Your task to perform on an android device: Empty the shopping cart on ebay.com. Search for "jbl flip 4" on ebay.com, select the first entry, and add it to the cart. Image 0: 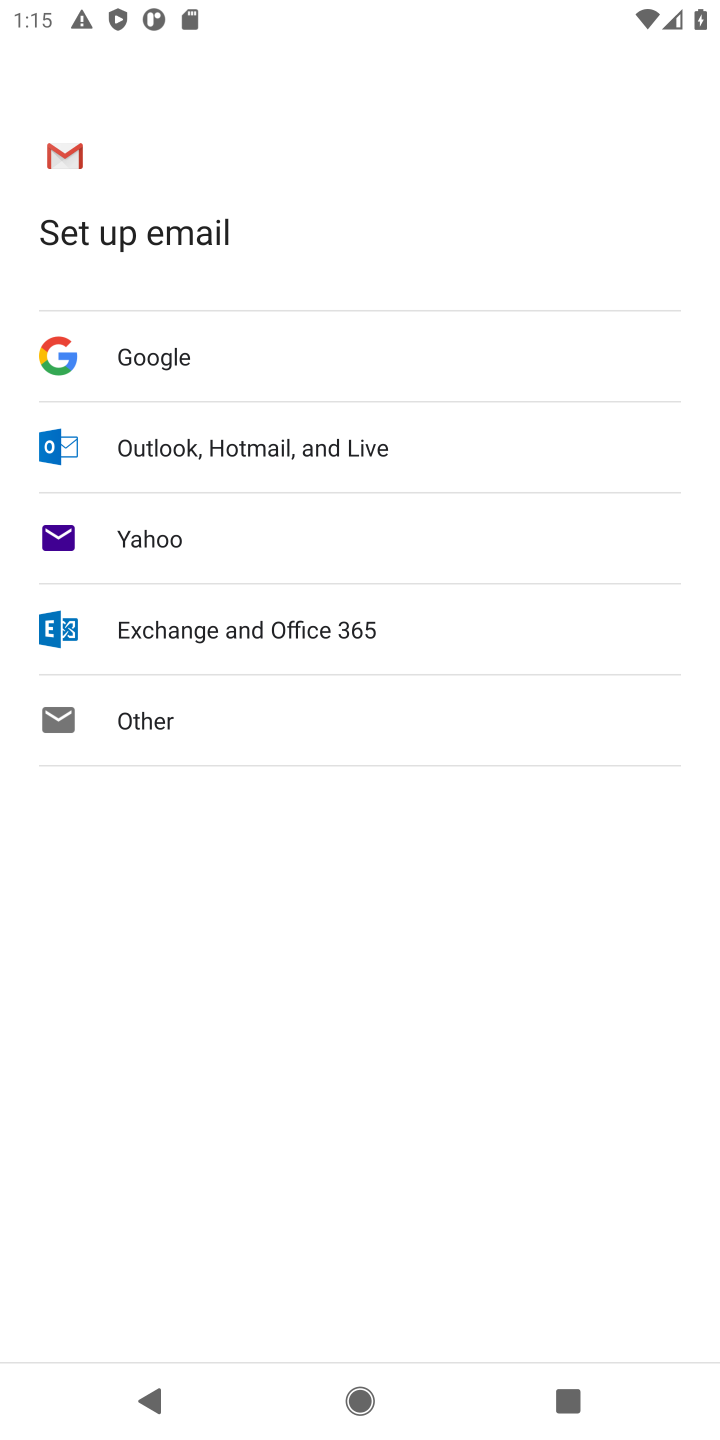
Step 0: press home button
Your task to perform on an android device: Empty the shopping cart on ebay.com. Search for "jbl flip 4" on ebay.com, select the first entry, and add it to the cart. Image 1: 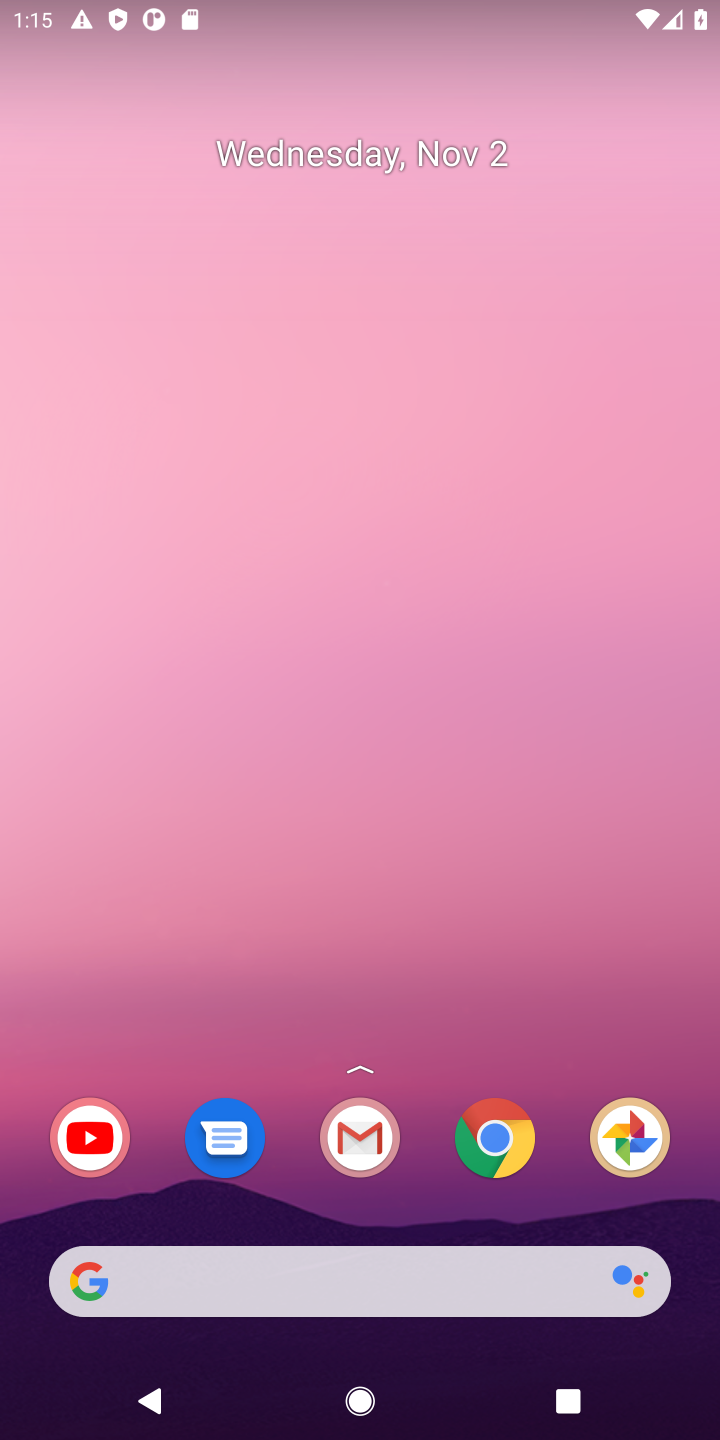
Step 1: click (154, 1275)
Your task to perform on an android device: Empty the shopping cart on ebay.com. Search for "jbl flip 4" on ebay.com, select the first entry, and add it to the cart. Image 2: 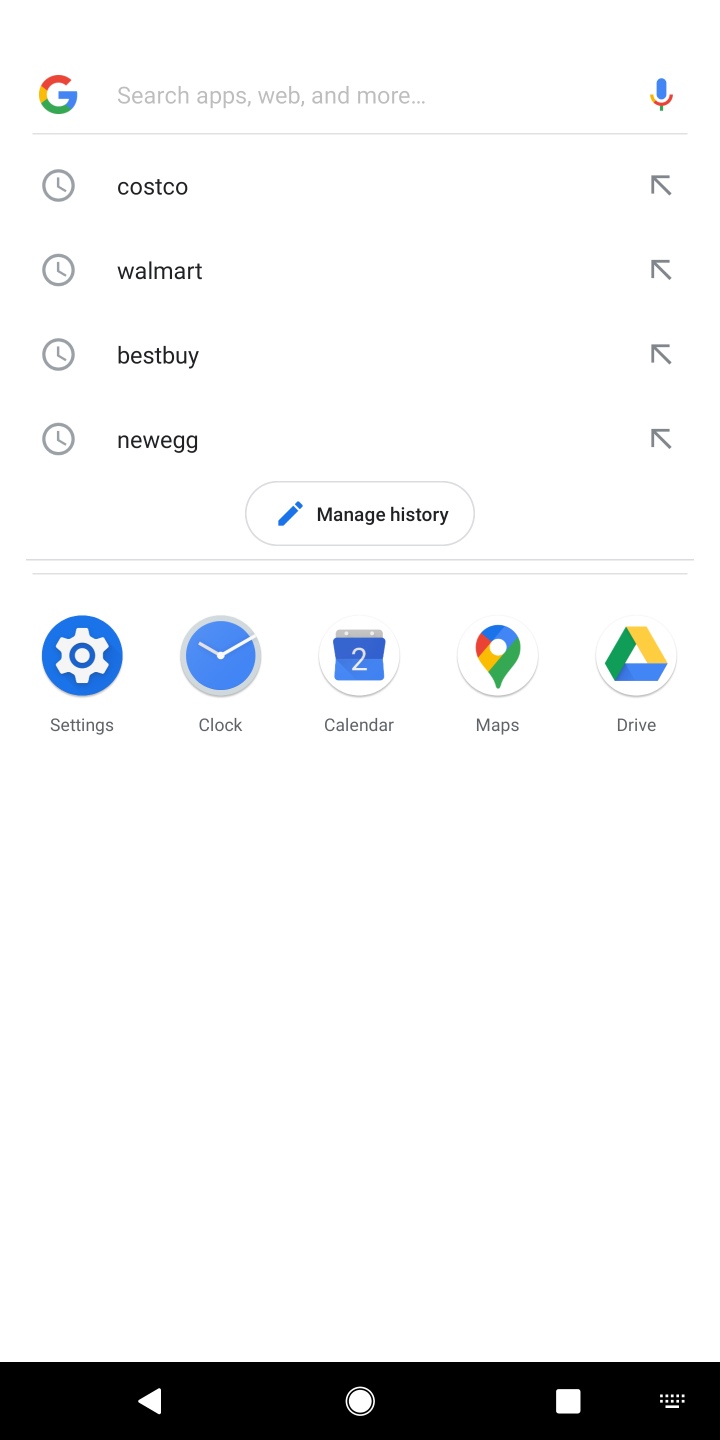
Step 2: type "ebay.com"
Your task to perform on an android device: Empty the shopping cart on ebay.com. Search for "jbl flip 4" on ebay.com, select the first entry, and add it to the cart. Image 3: 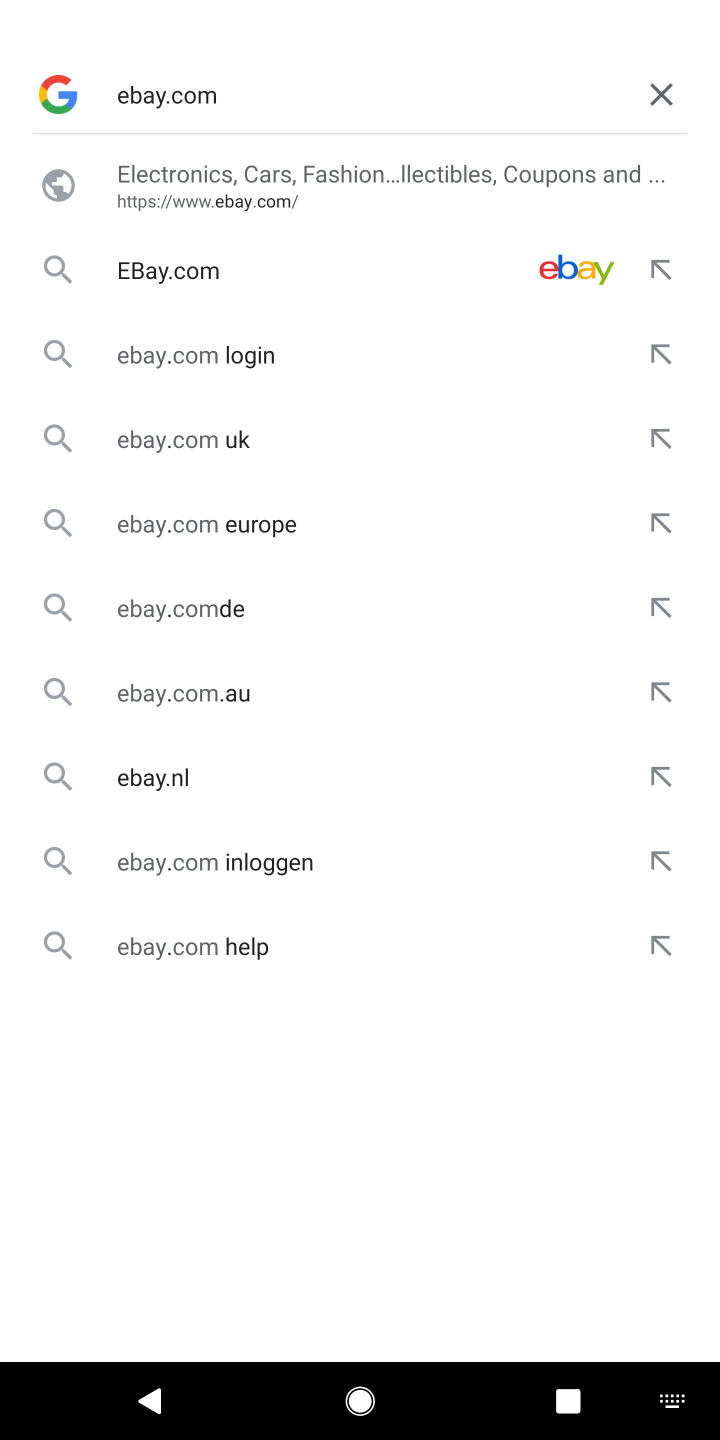
Step 3: press enter
Your task to perform on an android device: Empty the shopping cart on ebay.com. Search for "jbl flip 4" on ebay.com, select the first entry, and add it to the cart. Image 4: 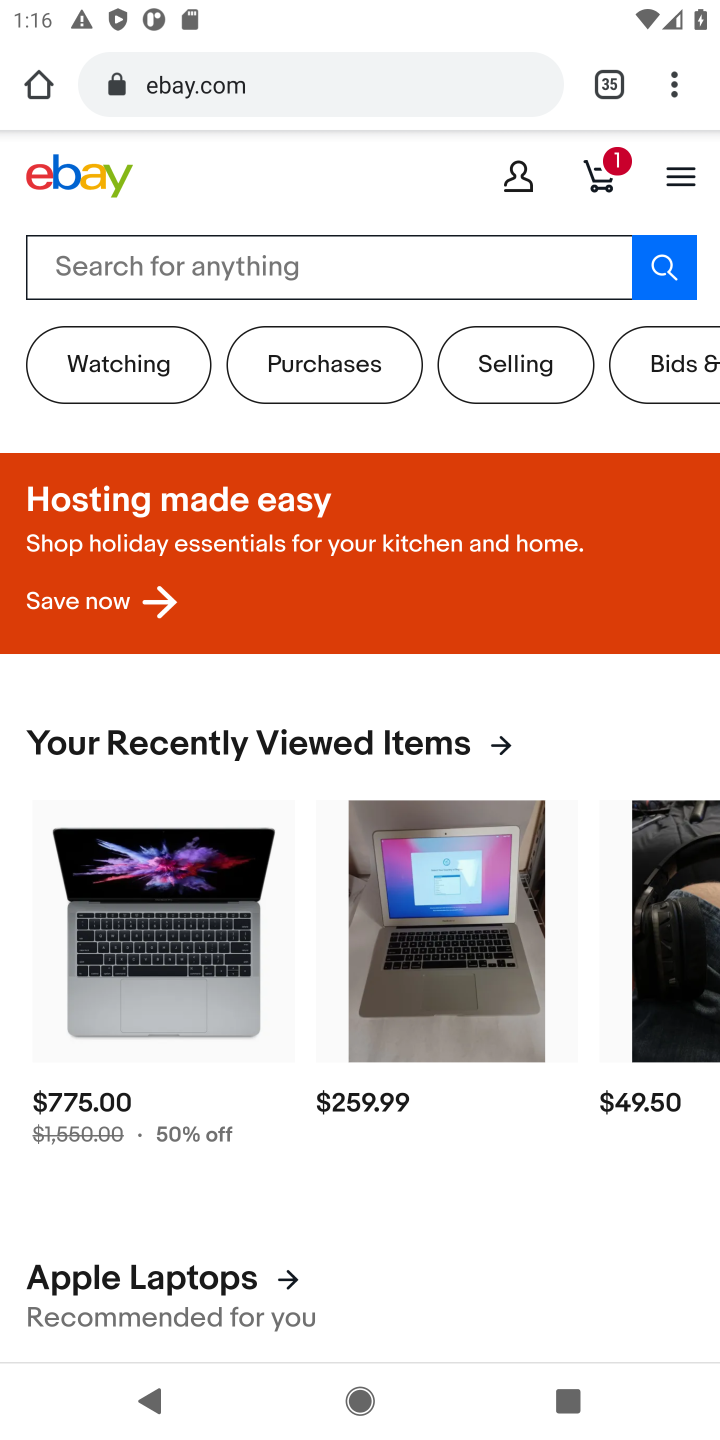
Step 4: click (607, 174)
Your task to perform on an android device: Empty the shopping cart on ebay.com. Search for "jbl flip 4" on ebay.com, select the first entry, and add it to the cart. Image 5: 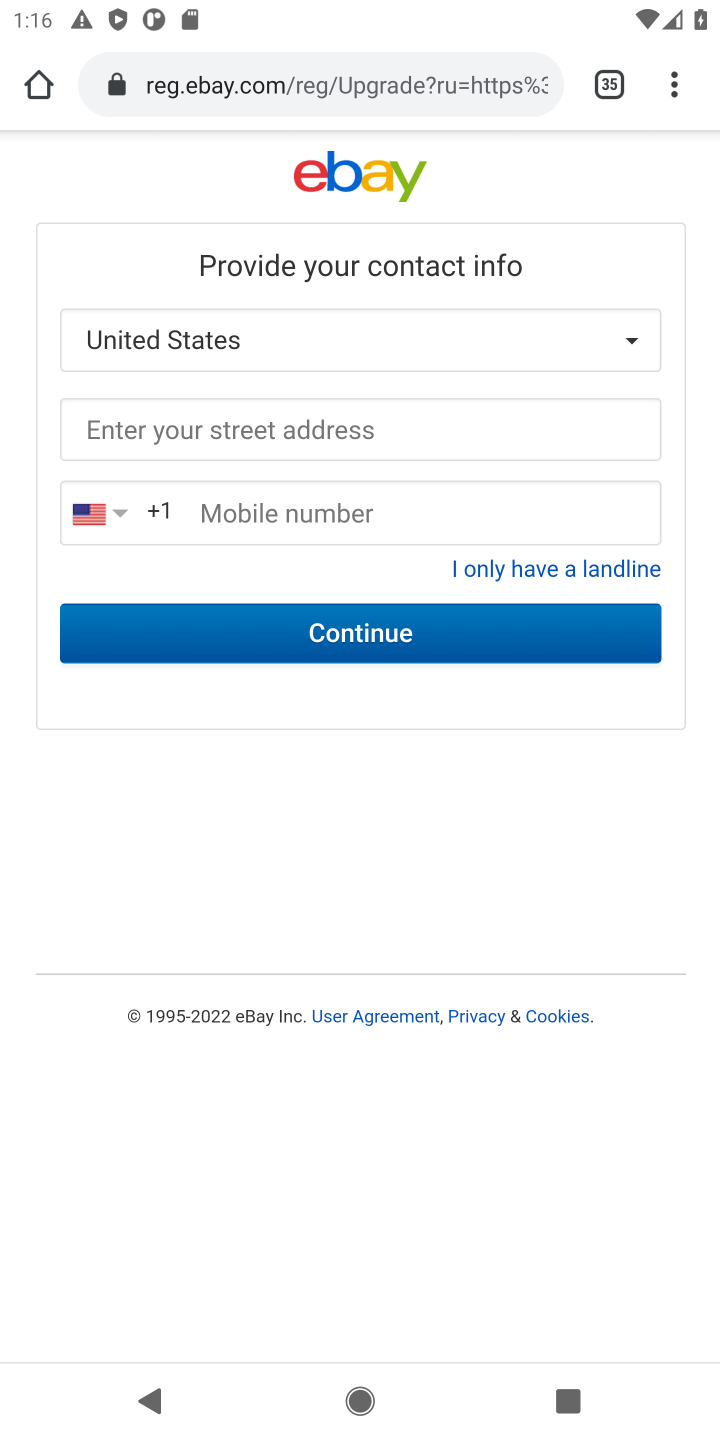
Step 5: press back button
Your task to perform on an android device: Empty the shopping cart on ebay.com. Search for "jbl flip 4" on ebay.com, select the first entry, and add it to the cart. Image 6: 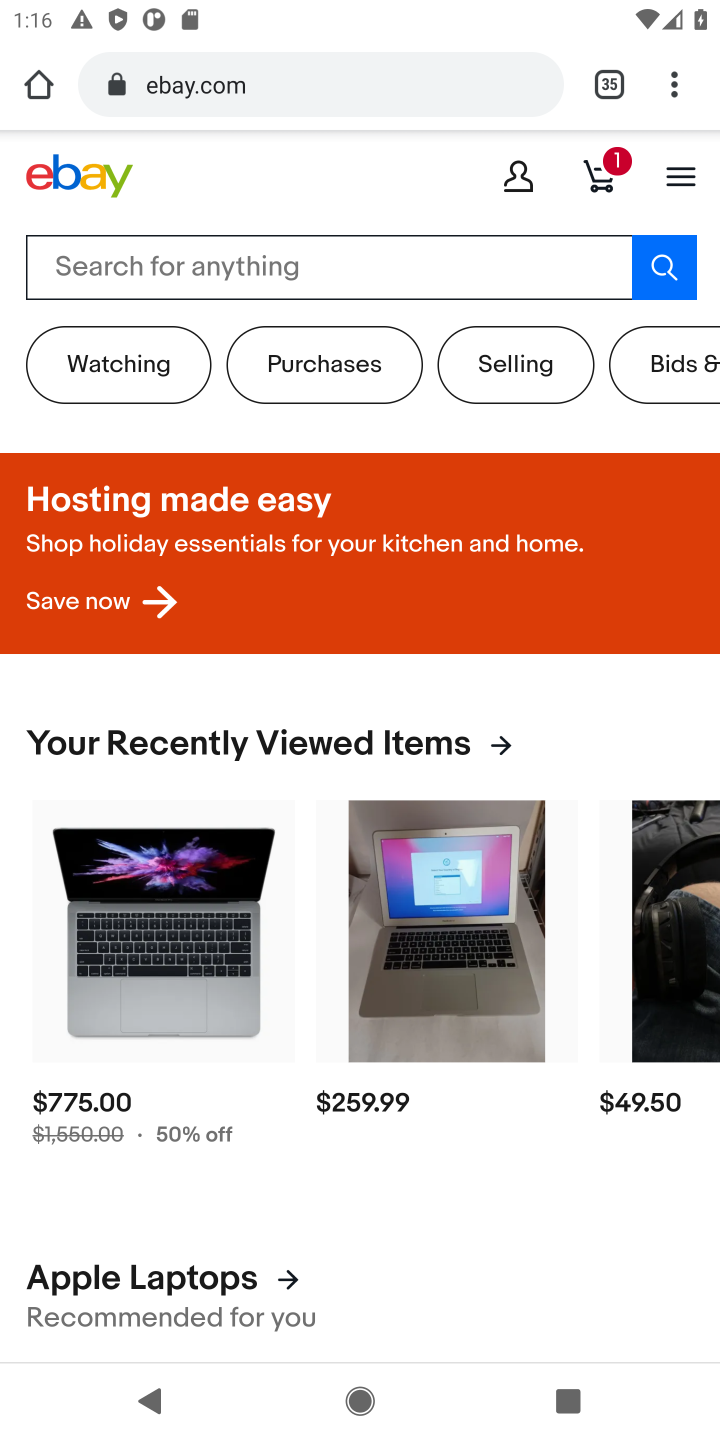
Step 6: click (274, 263)
Your task to perform on an android device: Empty the shopping cart on ebay.com. Search for "jbl flip 4" on ebay.com, select the first entry, and add it to the cart. Image 7: 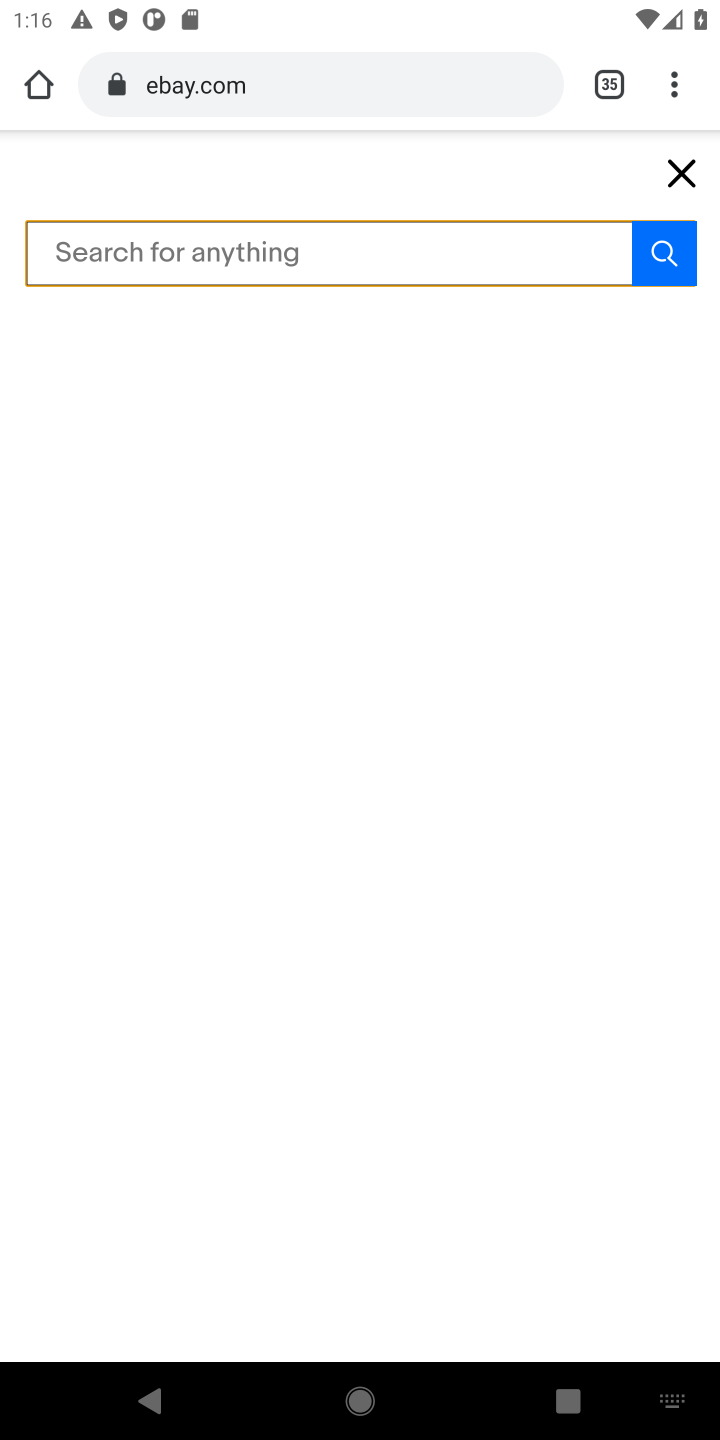
Step 7: press enter
Your task to perform on an android device: Empty the shopping cart on ebay.com. Search for "jbl flip 4" on ebay.com, select the first entry, and add it to the cart. Image 8: 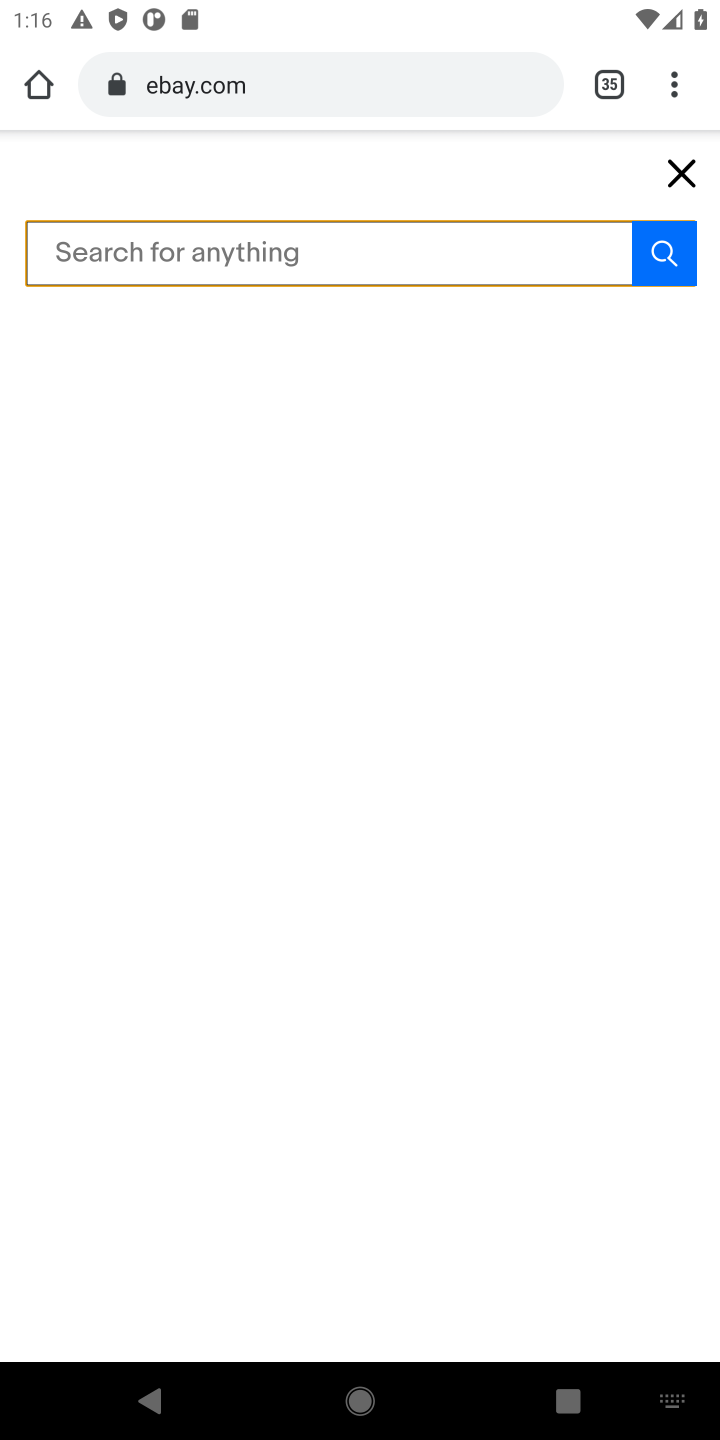
Step 8: type "jbl flip 4"
Your task to perform on an android device: Empty the shopping cart on ebay.com. Search for "jbl flip 4" on ebay.com, select the first entry, and add it to the cart. Image 9: 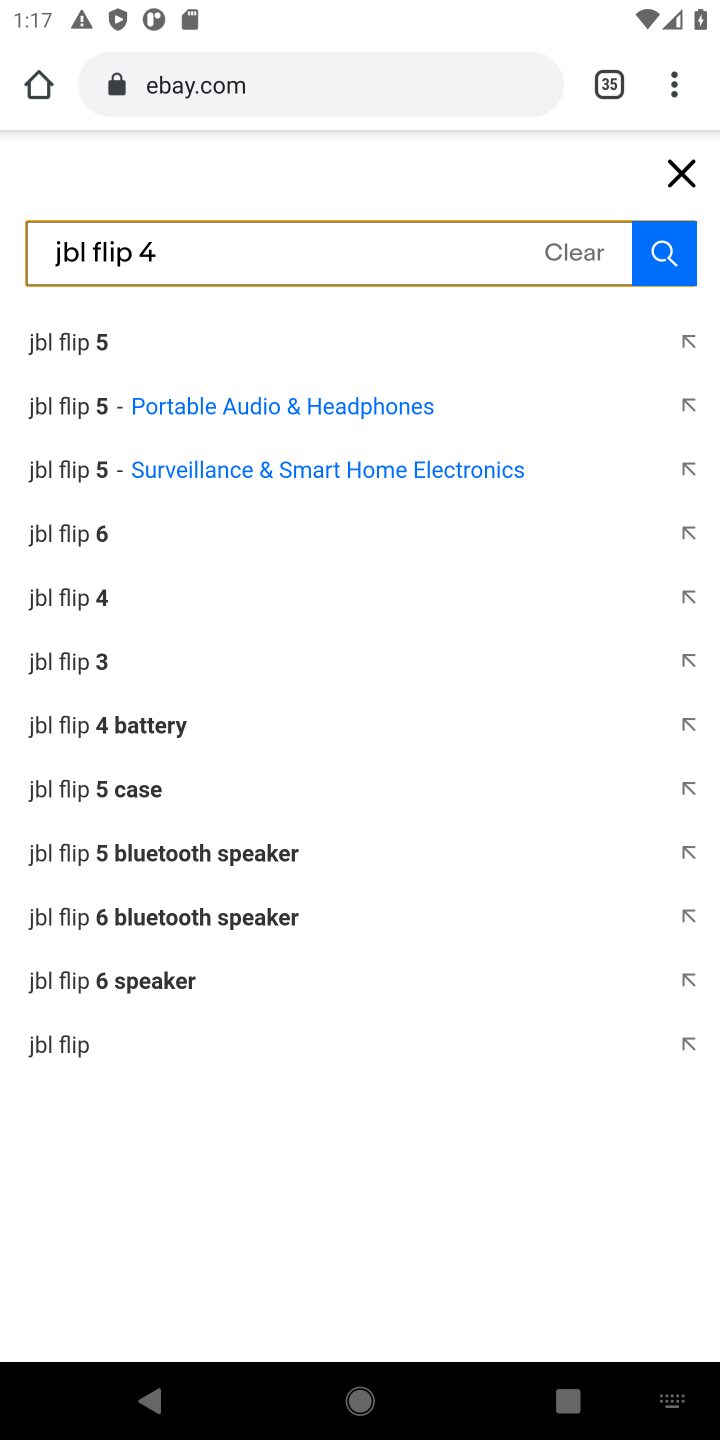
Step 9: click (665, 249)
Your task to perform on an android device: Empty the shopping cart on ebay.com. Search for "jbl flip 4" on ebay.com, select the first entry, and add it to the cart. Image 10: 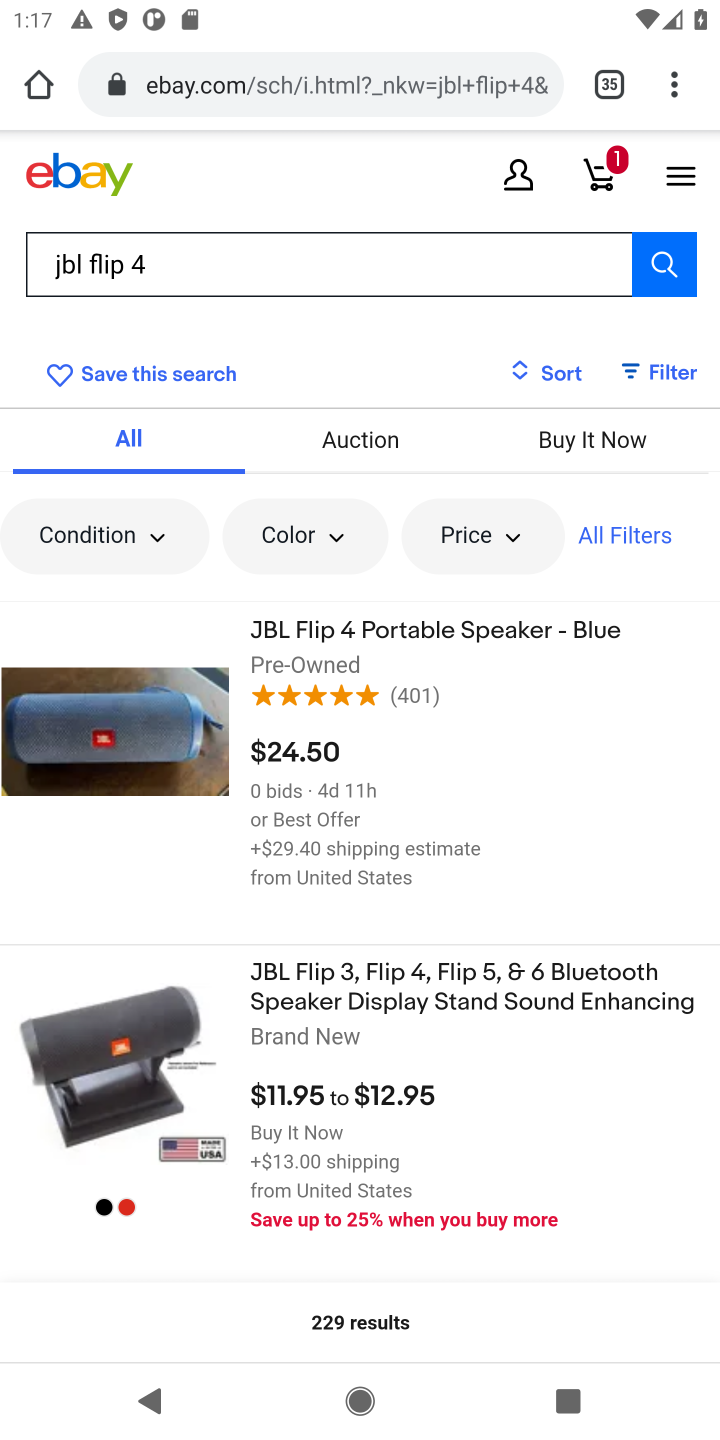
Step 10: click (340, 658)
Your task to perform on an android device: Empty the shopping cart on ebay.com. Search for "jbl flip 4" on ebay.com, select the first entry, and add it to the cart. Image 11: 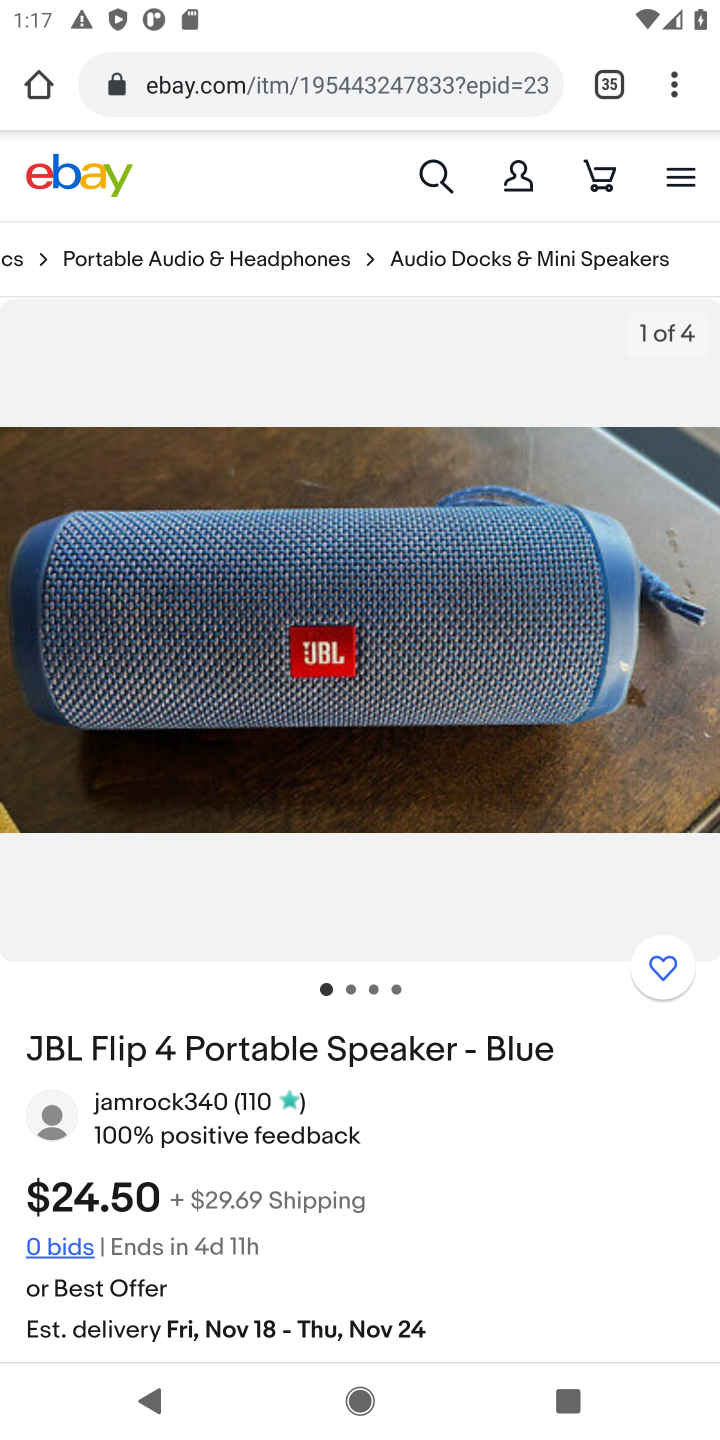
Step 11: drag from (399, 1164) to (453, 742)
Your task to perform on an android device: Empty the shopping cart on ebay.com. Search for "jbl flip 4" on ebay.com, select the first entry, and add it to the cart. Image 12: 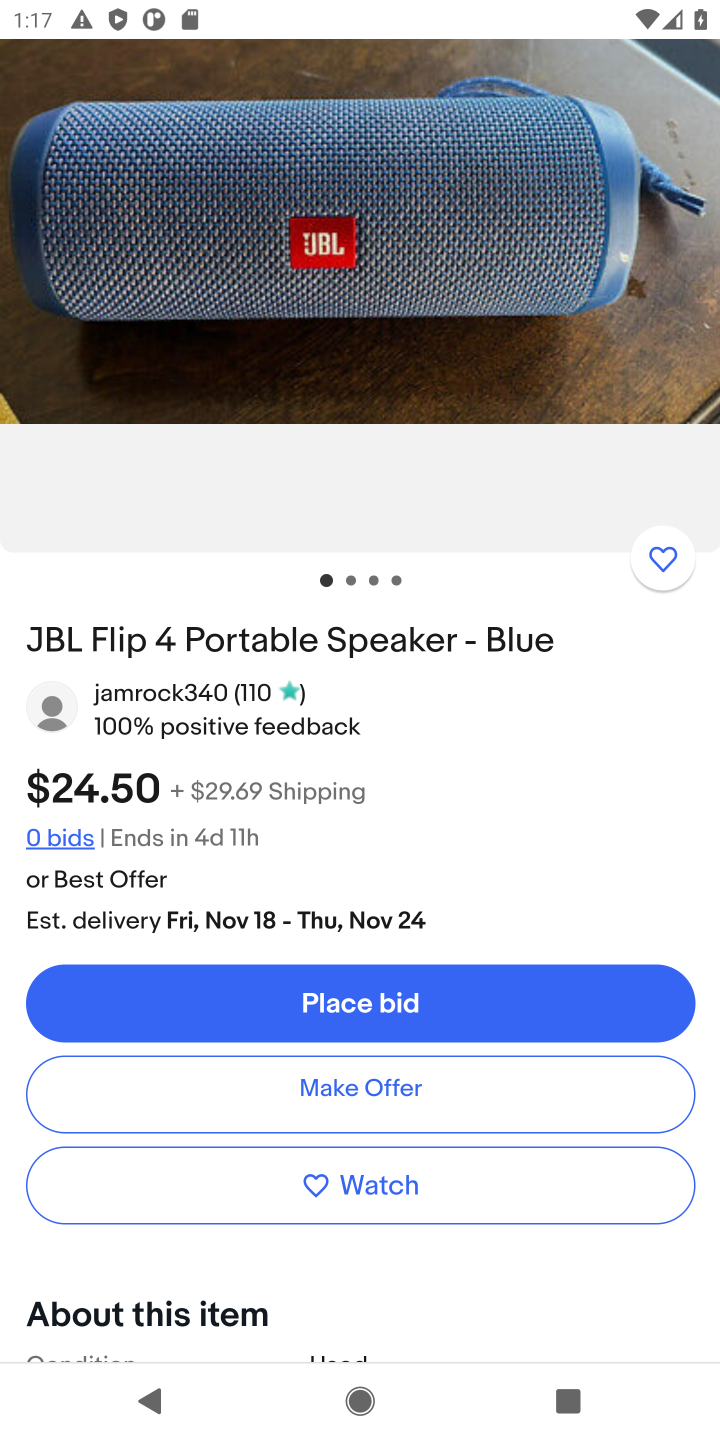
Step 12: click (324, 1010)
Your task to perform on an android device: Empty the shopping cart on ebay.com. Search for "jbl flip 4" on ebay.com, select the first entry, and add it to the cart. Image 13: 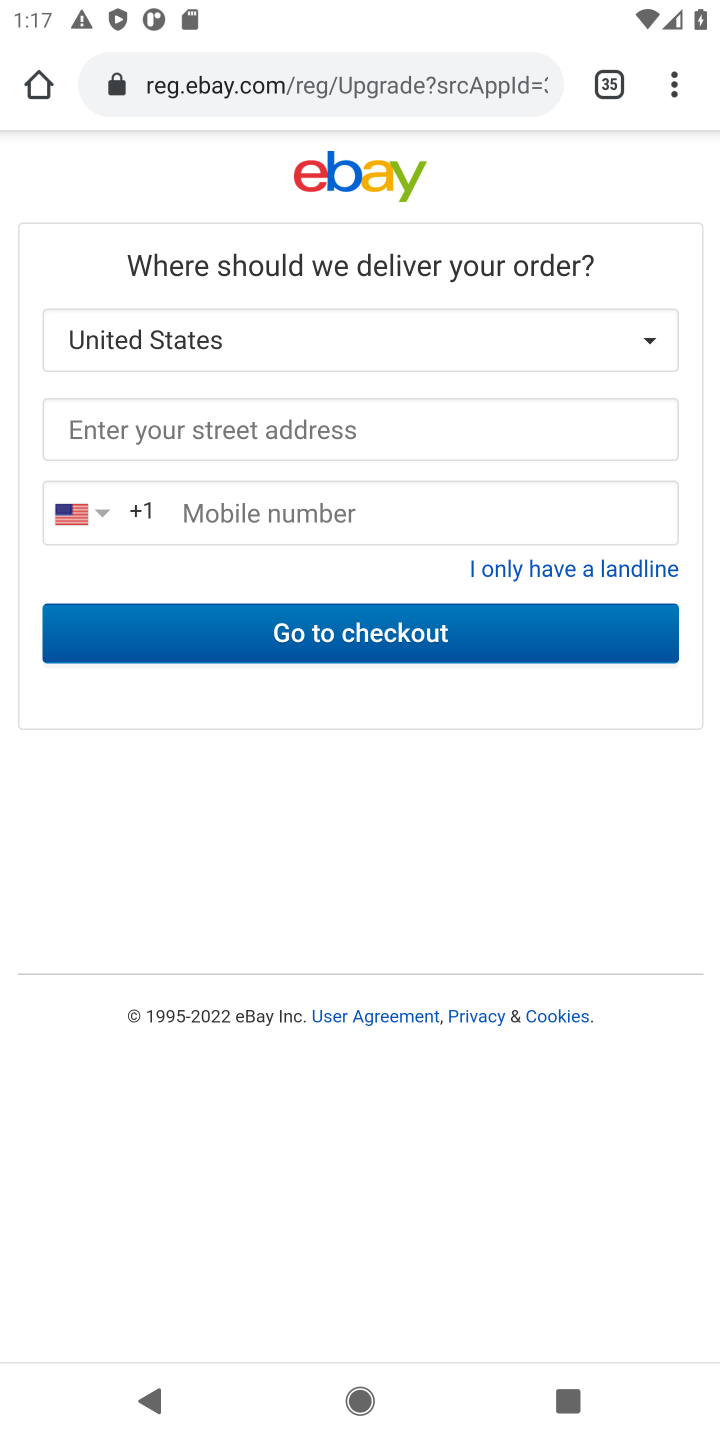
Step 13: task complete